Your task to perform on an android device: move an email to a new category in the gmail app Image 0: 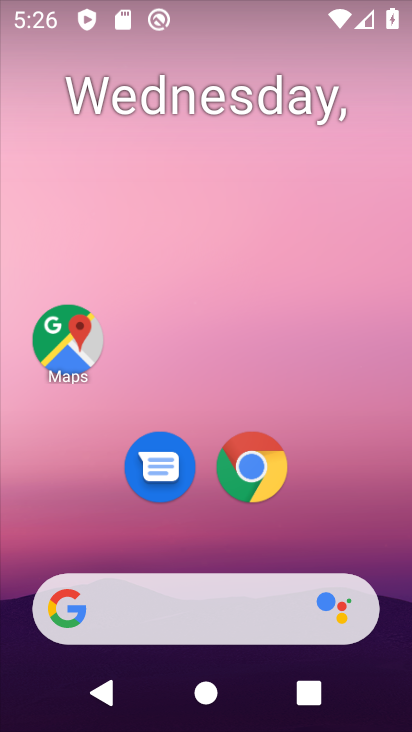
Step 0: drag from (340, 532) to (323, 84)
Your task to perform on an android device: move an email to a new category in the gmail app Image 1: 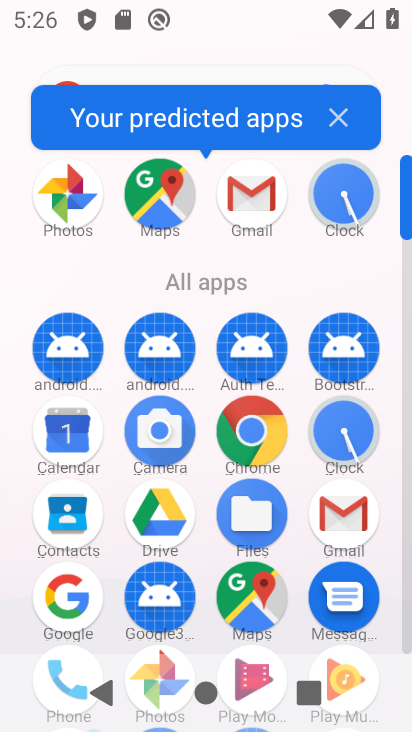
Step 1: click (338, 504)
Your task to perform on an android device: move an email to a new category in the gmail app Image 2: 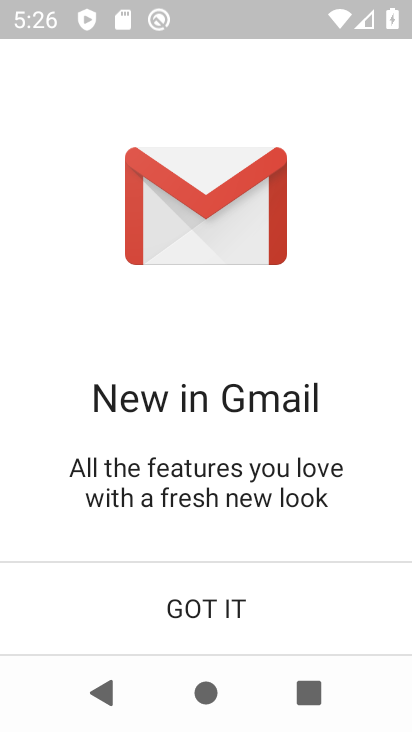
Step 2: click (217, 590)
Your task to perform on an android device: move an email to a new category in the gmail app Image 3: 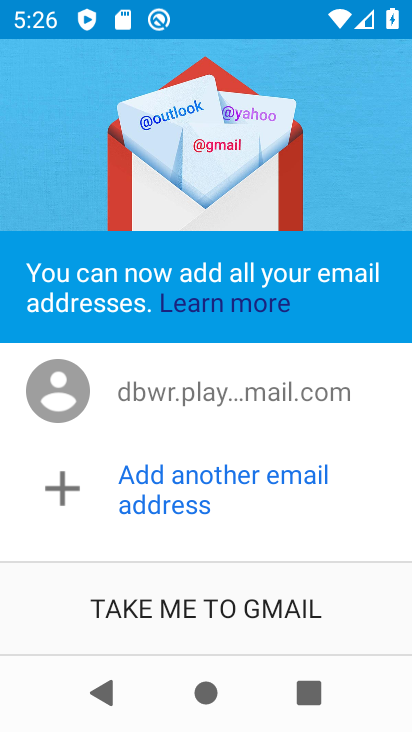
Step 3: click (217, 592)
Your task to perform on an android device: move an email to a new category in the gmail app Image 4: 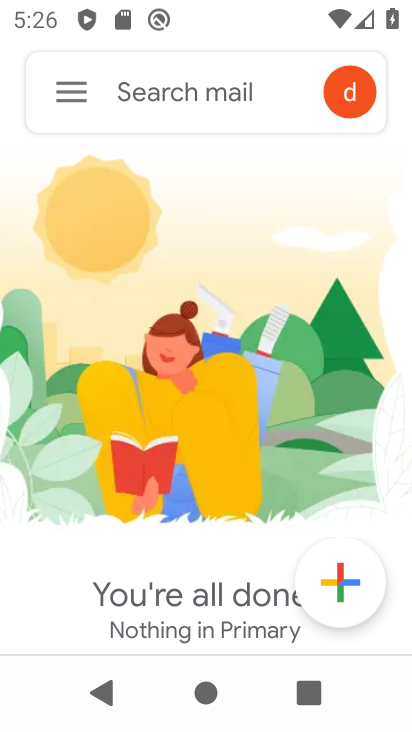
Step 4: task complete